Your task to perform on an android device: move an email to a new category in the gmail app Image 0: 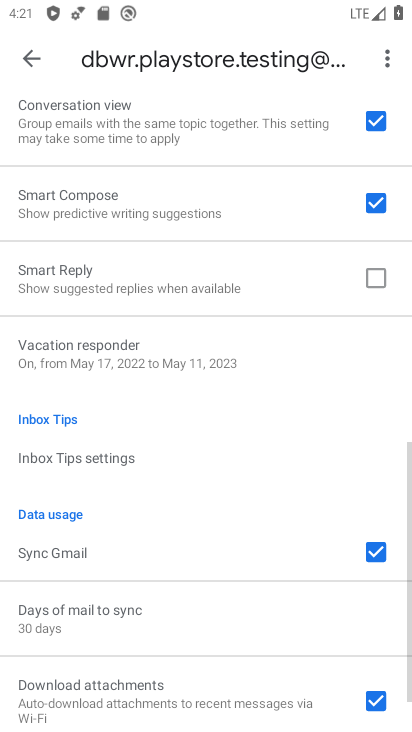
Step 0: press home button
Your task to perform on an android device: move an email to a new category in the gmail app Image 1: 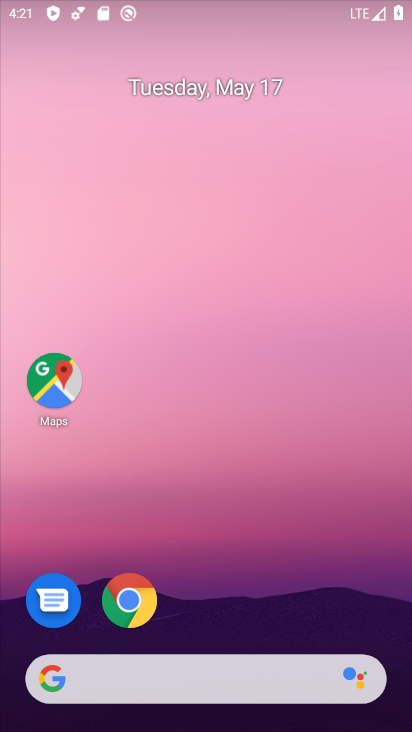
Step 1: drag from (384, 600) to (321, 68)
Your task to perform on an android device: move an email to a new category in the gmail app Image 2: 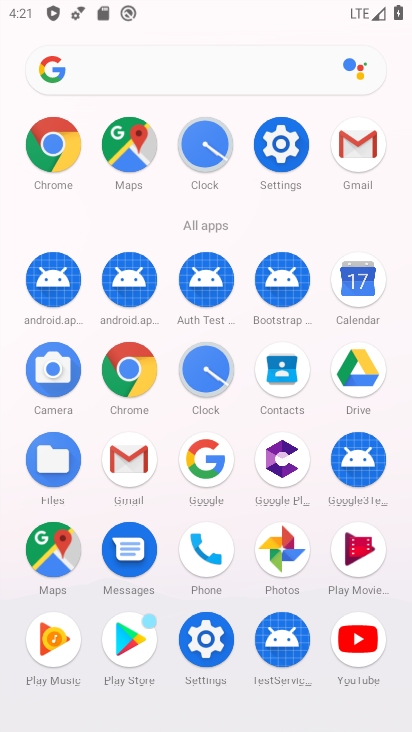
Step 2: click (130, 463)
Your task to perform on an android device: move an email to a new category in the gmail app Image 3: 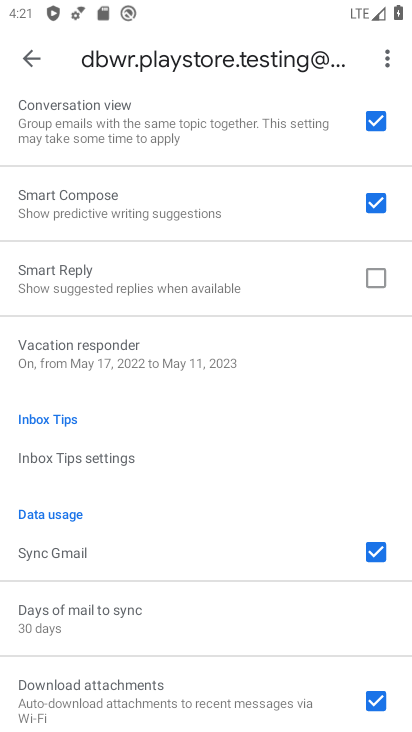
Step 3: press back button
Your task to perform on an android device: move an email to a new category in the gmail app Image 4: 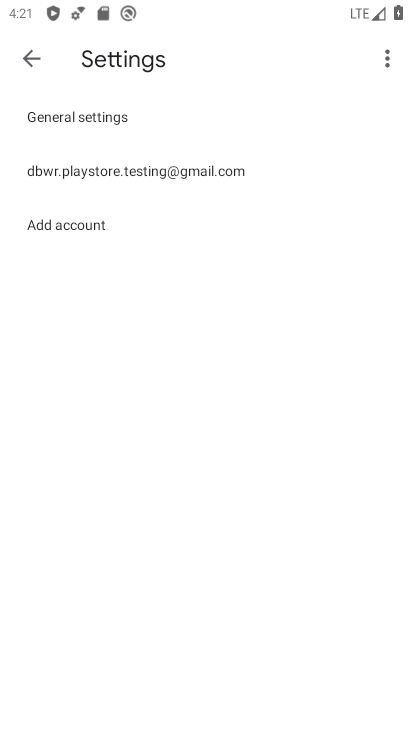
Step 4: press back button
Your task to perform on an android device: move an email to a new category in the gmail app Image 5: 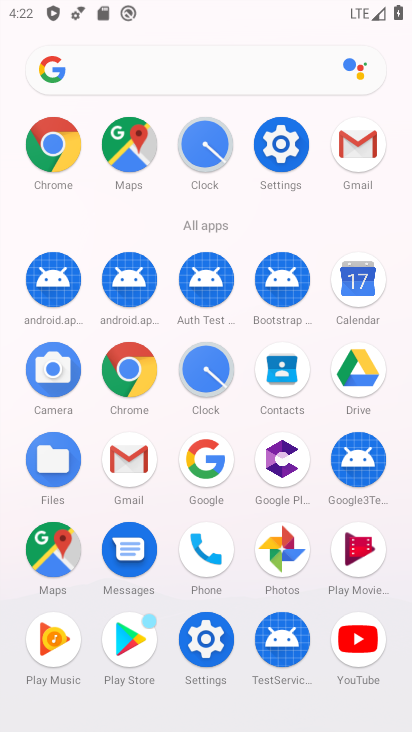
Step 5: click (133, 457)
Your task to perform on an android device: move an email to a new category in the gmail app Image 6: 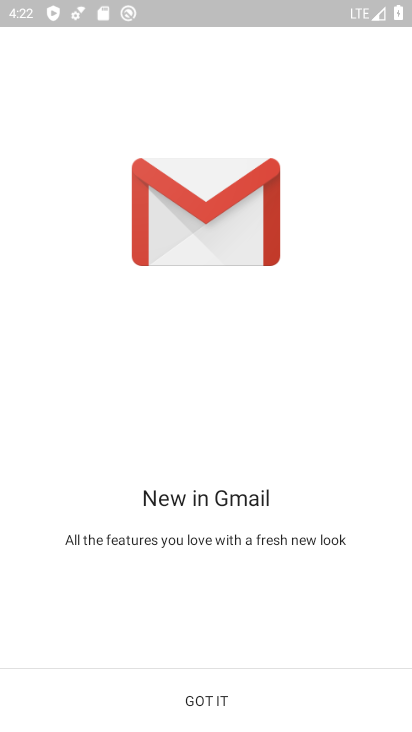
Step 6: click (210, 693)
Your task to perform on an android device: move an email to a new category in the gmail app Image 7: 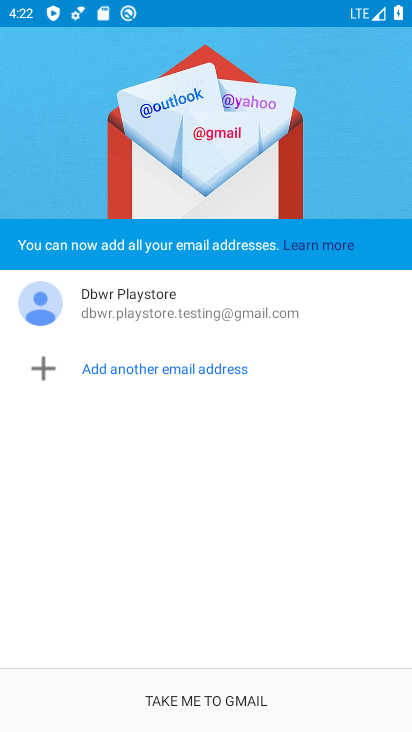
Step 7: click (200, 689)
Your task to perform on an android device: move an email to a new category in the gmail app Image 8: 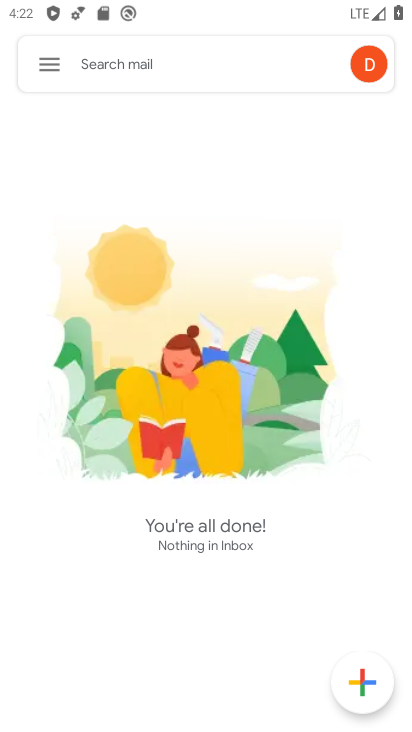
Step 8: click (46, 61)
Your task to perform on an android device: move an email to a new category in the gmail app Image 9: 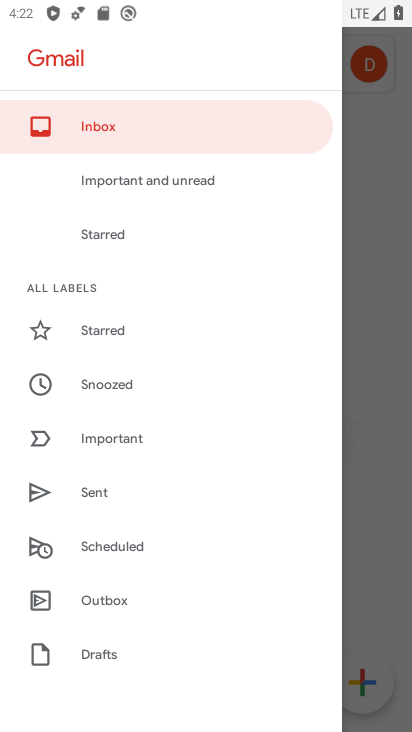
Step 9: drag from (200, 622) to (209, 262)
Your task to perform on an android device: move an email to a new category in the gmail app Image 10: 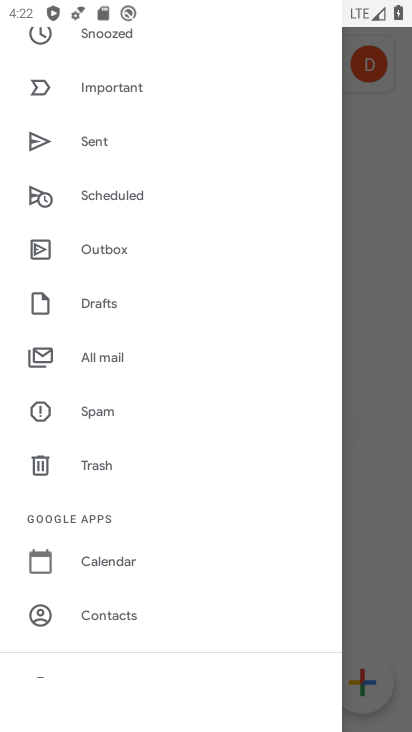
Step 10: click (87, 359)
Your task to perform on an android device: move an email to a new category in the gmail app Image 11: 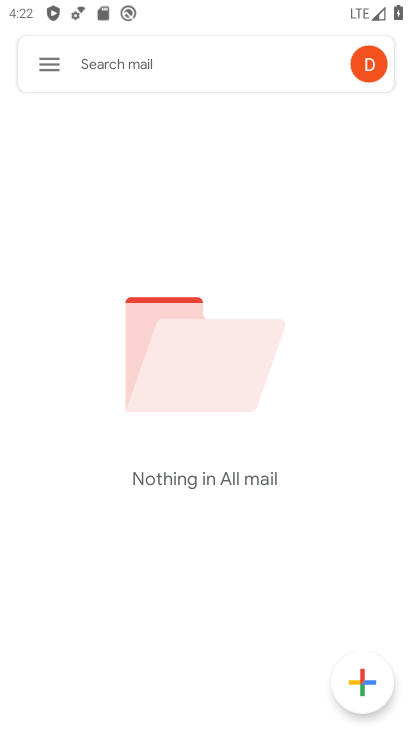
Step 11: task complete